Your task to perform on an android device: Go to accessibility settings Image 0: 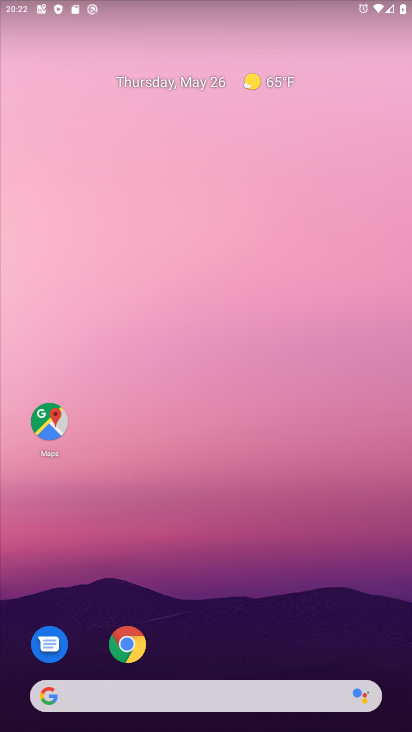
Step 0: drag from (248, 443) to (156, 70)
Your task to perform on an android device: Go to accessibility settings Image 1: 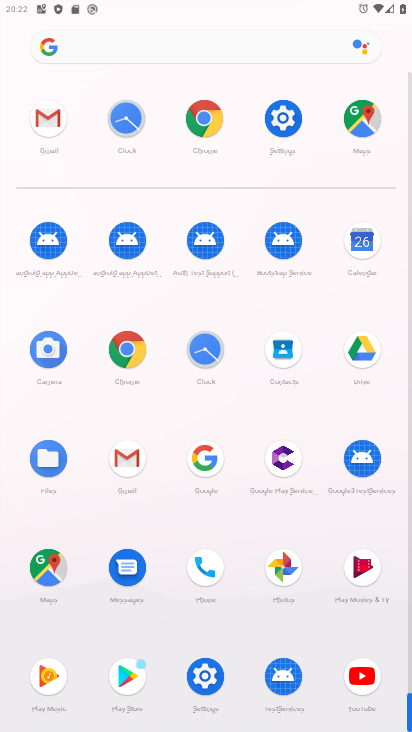
Step 1: click (203, 678)
Your task to perform on an android device: Go to accessibility settings Image 2: 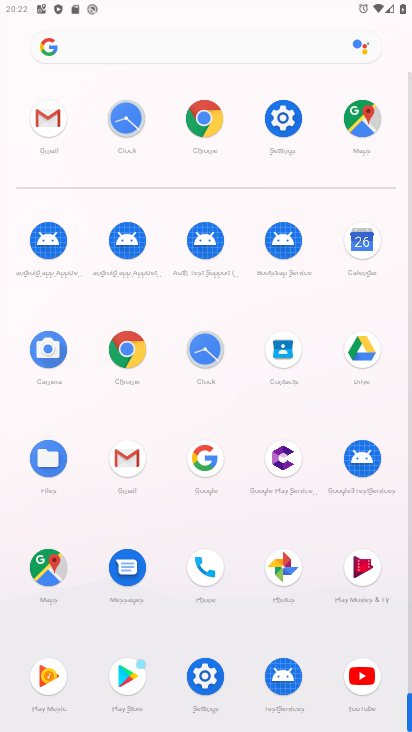
Step 2: click (203, 678)
Your task to perform on an android device: Go to accessibility settings Image 3: 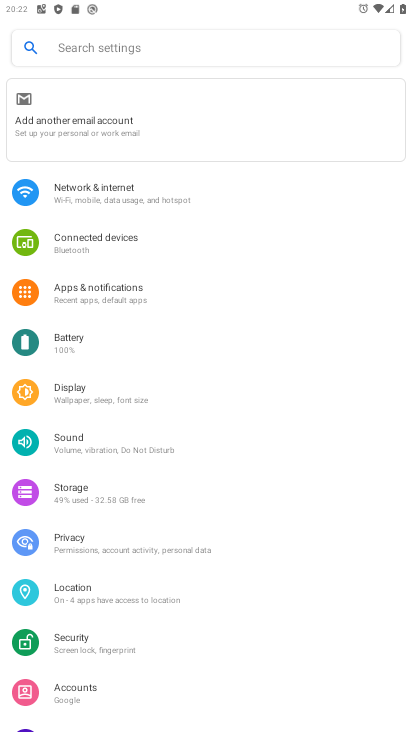
Step 3: drag from (141, 565) to (211, 241)
Your task to perform on an android device: Go to accessibility settings Image 4: 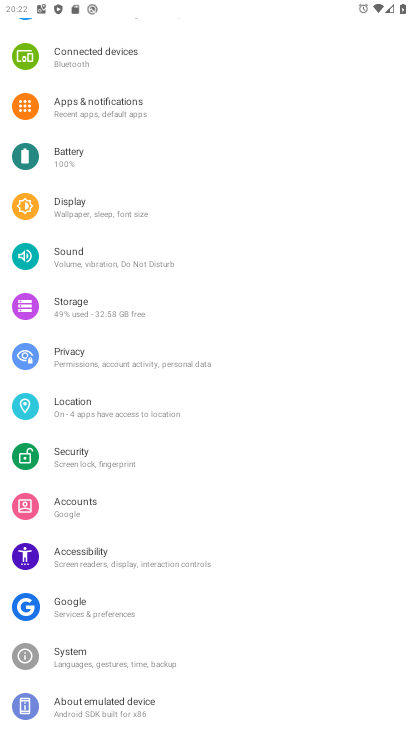
Step 4: click (95, 559)
Your task to perform on an android device: Go to accessibility settings Image 5: 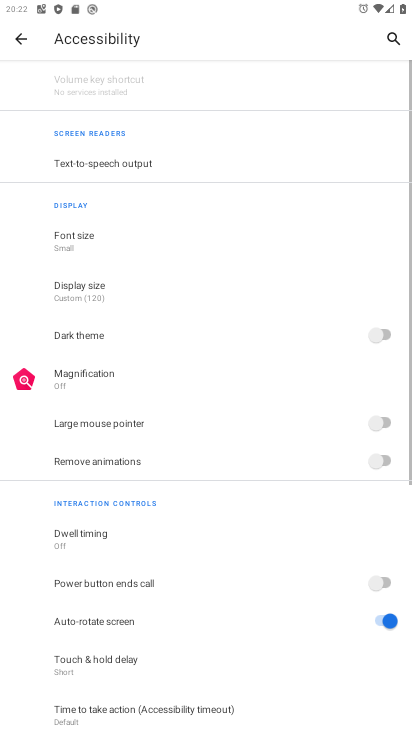
Step 5: task complete